Your task to perform on an android device: check android version Image 0: 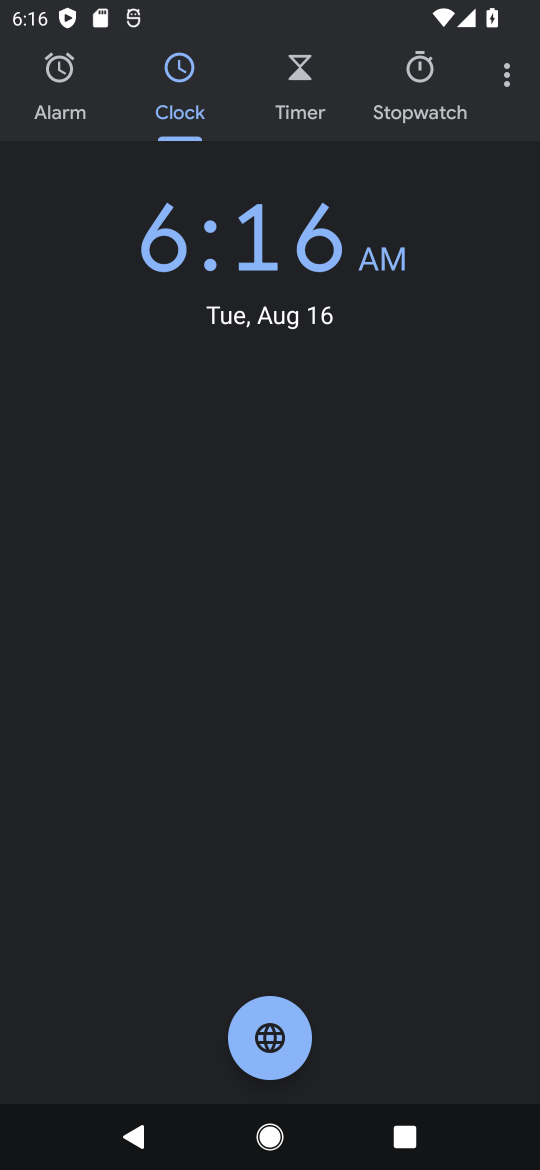
Step 0: press home button
Your task to perform on an android device: check android version Image 1: 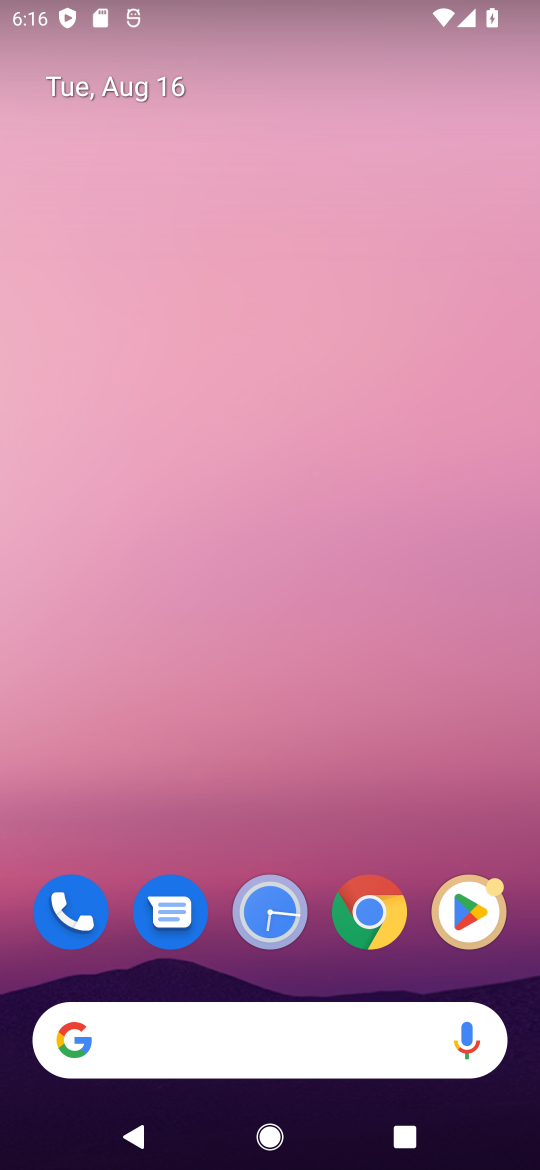
Step 1: drag from (270, 570) to (284, 105)
Your task to perform on an android device: check android version Image 2: 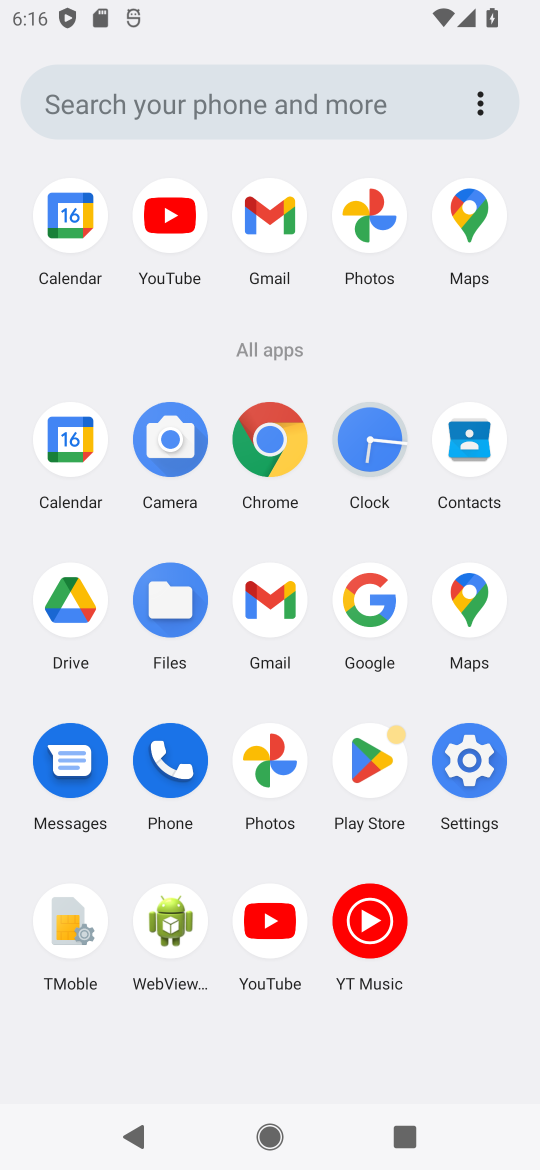
Step 2: click (471, 758)
Your task to perform on an android device: check android version Image 3: 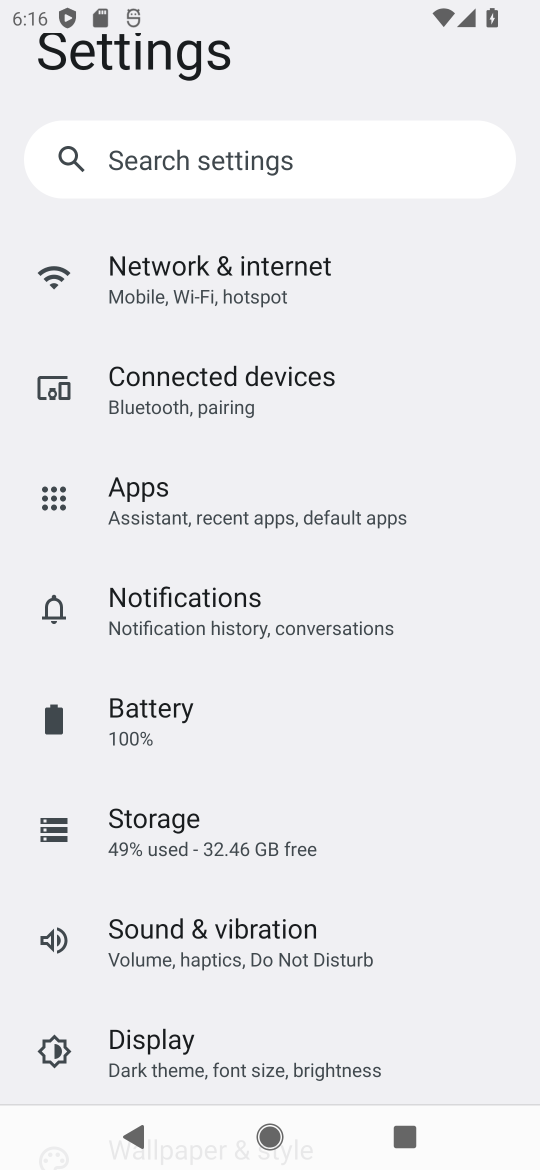
Step 3: drag from (420, 1035) to (423, 357)
Your task to perform on an android device: check android version Image 4: 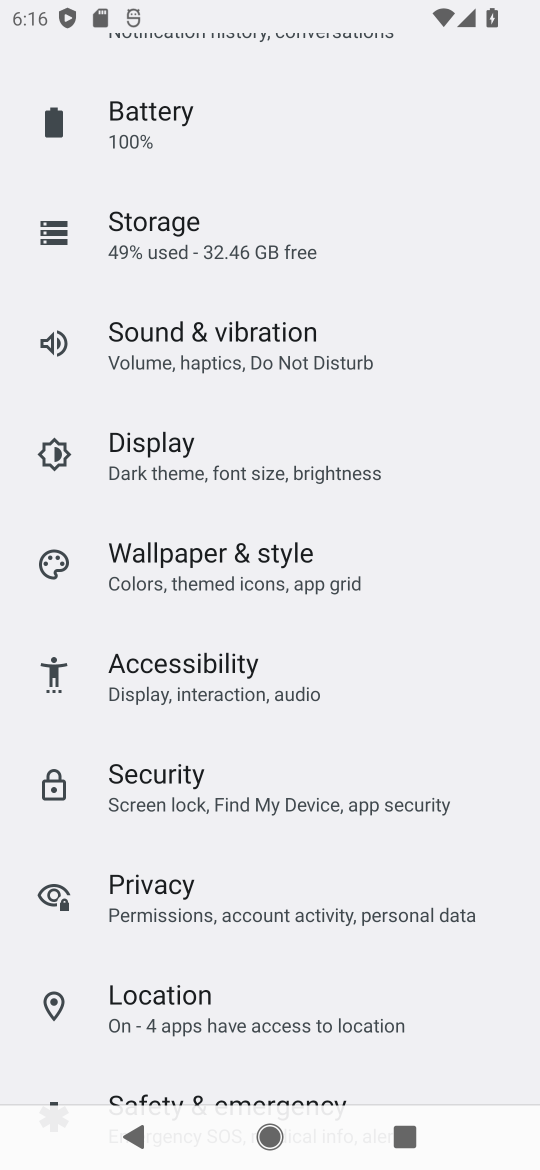
Step 4: drag from (446, 1043) to (425, 278)
Your task to perform on an android device: check android version Image 5: 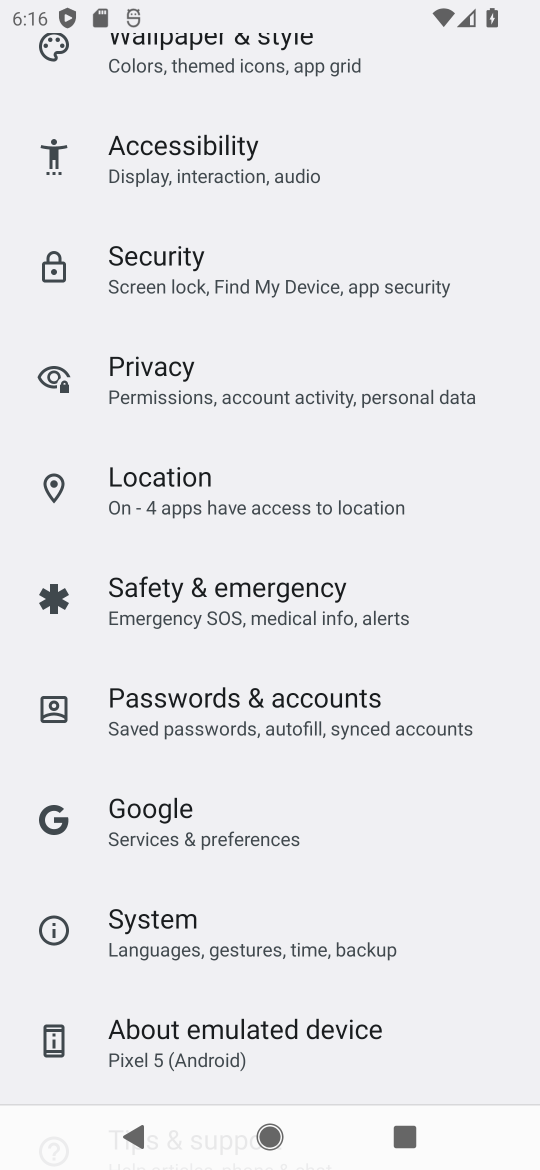
Step 5: drag from (432, 1018) to (484, 260)
Your task to perform on an android device: check android version Image 6: 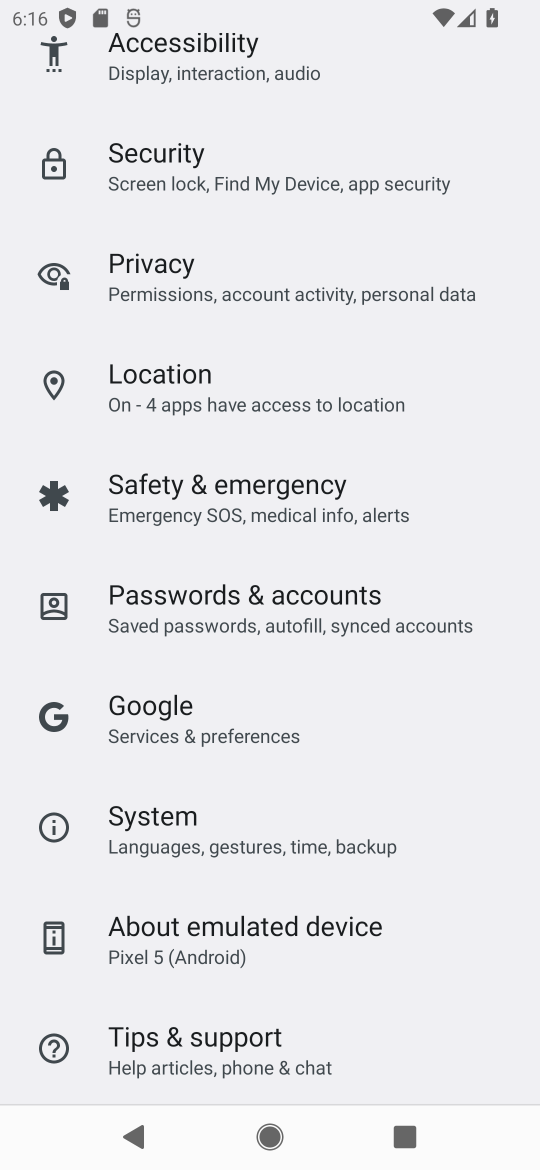
Step 6: click (167, 925)
Your task to perform on an android device: check android version Image 7: 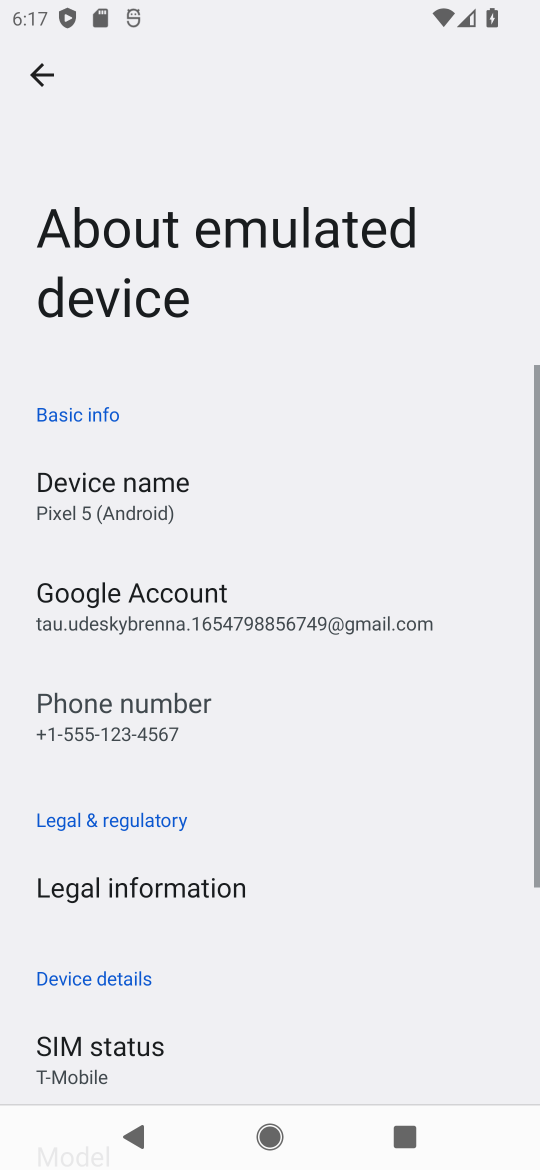
Step 7: drag from (427, 1012) to (402, 215)
Your task to perform on an android device: check android version Image 8: 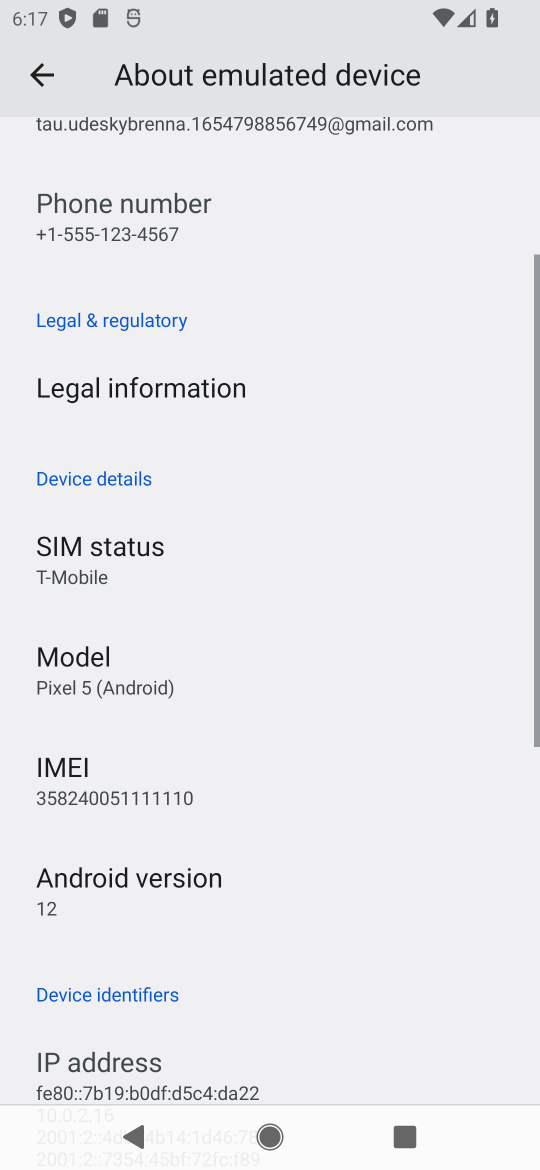
Step 8: click (59, 881)
Your task to perform on an android device: check android version Image 9: 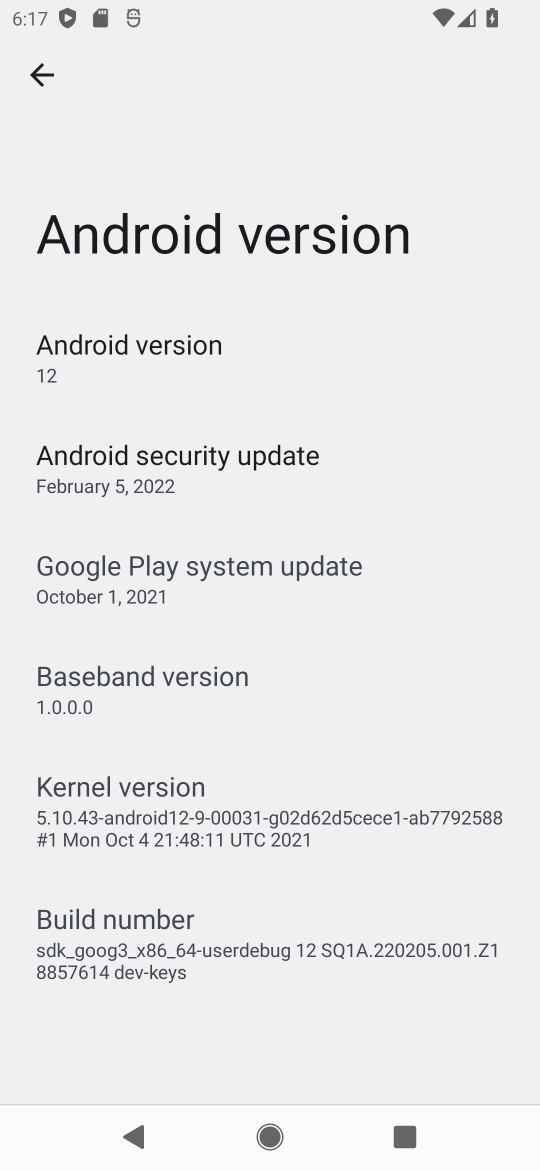
Step 9: drag from (365, 887) to (344, 326)
Your task to perform on an android device: check android version Image 10: 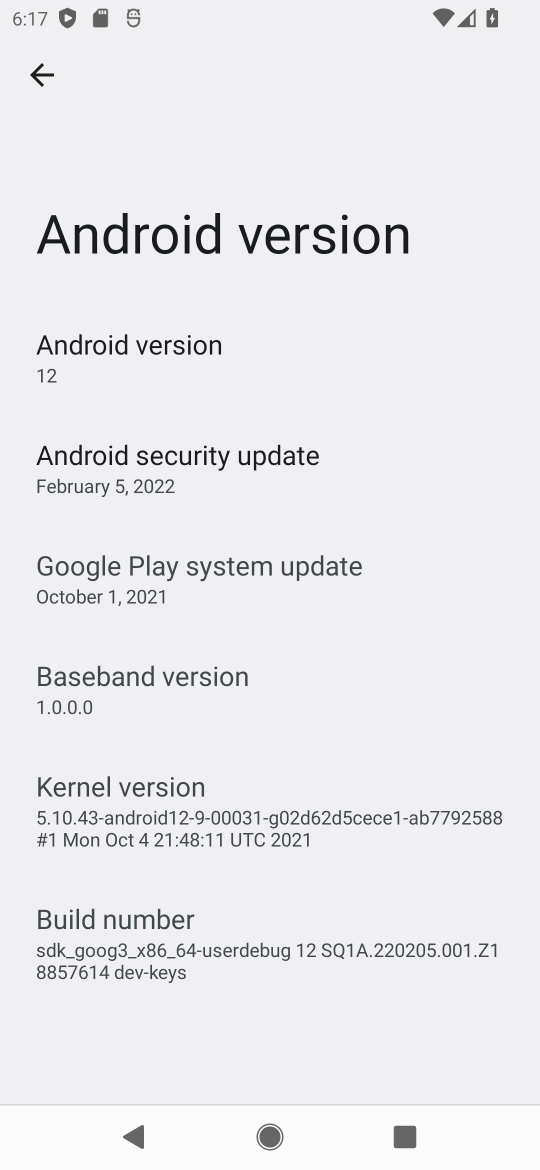
Step 10: drag from (401, 720) to (389, 321)
Your task to perform on an android device: check android version Image 11: 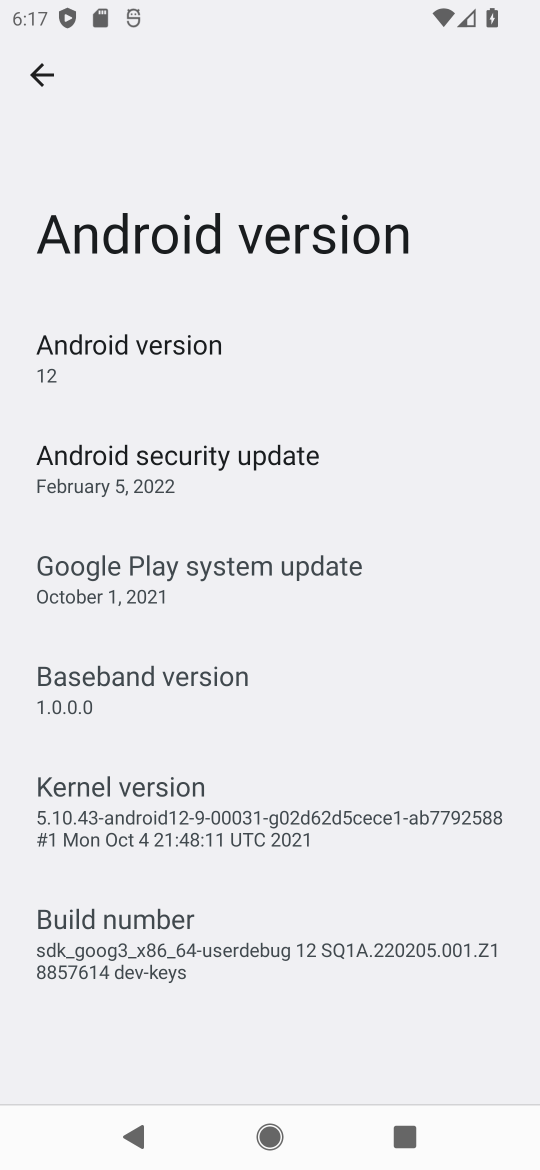
Step 11: click (92, 338)
Your task to perform on an android device: check android version Image 12: 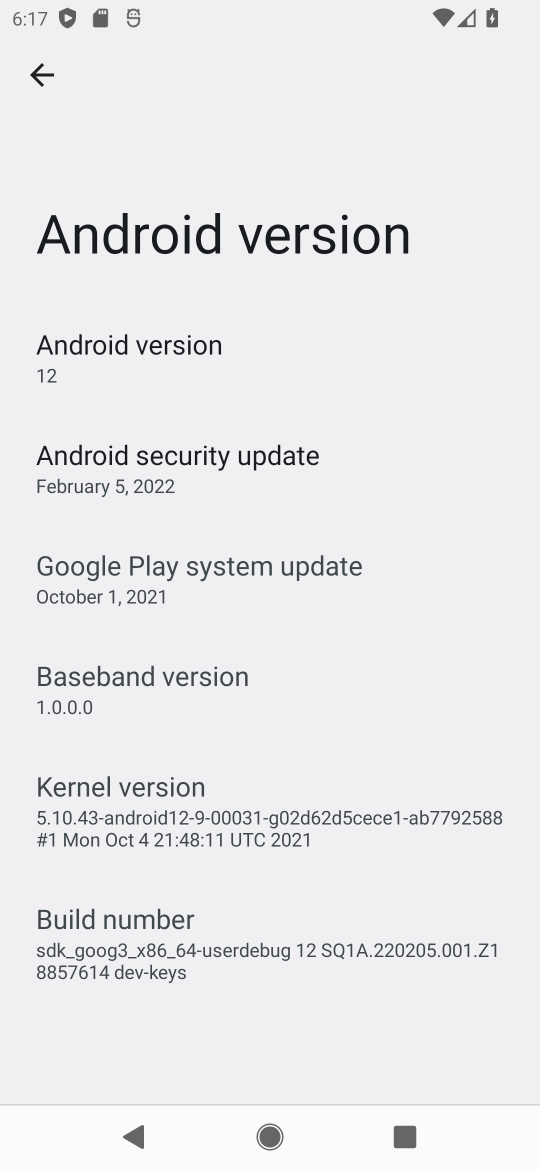
Step 12: task complete